Your task to perform on an android device: Go to Yahoo.com Image 0: 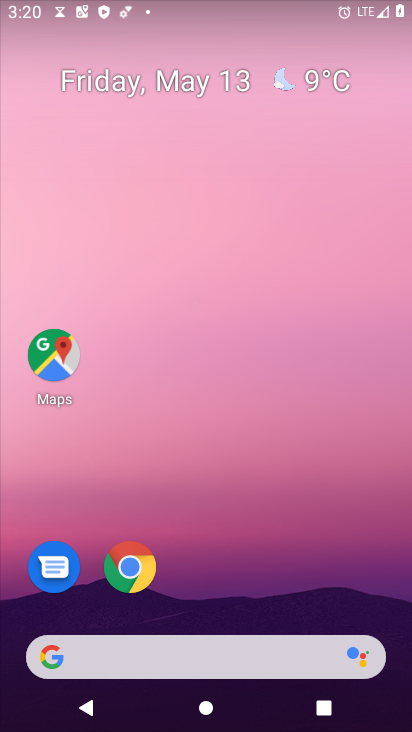
Step 0: click (134, 575)
Your task to perform on an android device: Go to Yahoo.com Image 1: 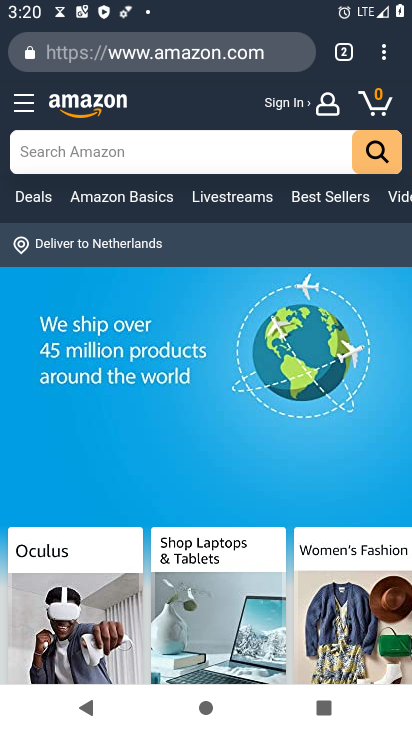
Step 1: click (167, 56)
Your task to perform on an android device: Go to Yahoo.com Image 2: 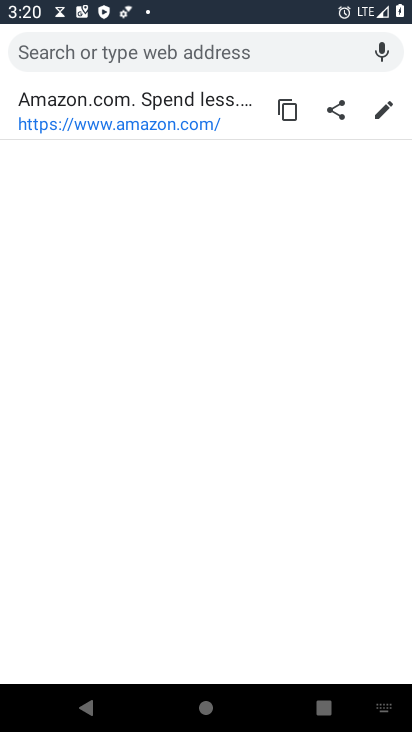
Step 2: type "yahoo.com"
Your task to perform on an android device: Go to Yahoo.com Image 3: 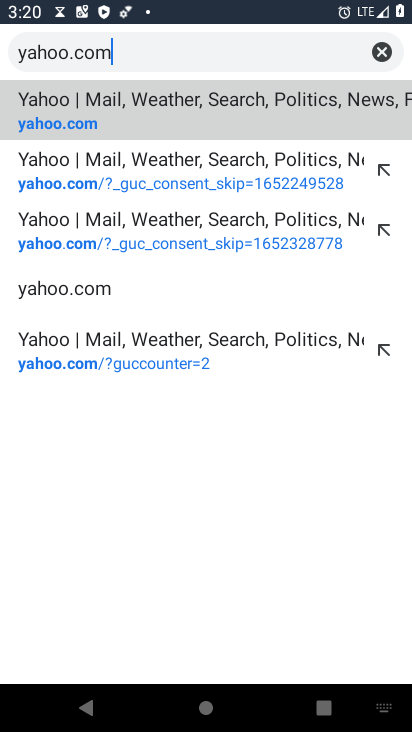
Step 3: click (82, 126)
Your task to perform on an android device: Go to Yahoo.com Image 4: 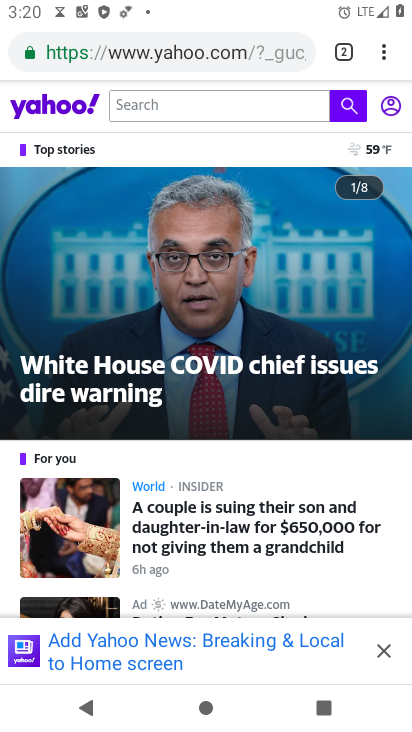
Step 4: task complete